Your task to perform on an android device: allow notifications from all sites in the chrome app Image 0: 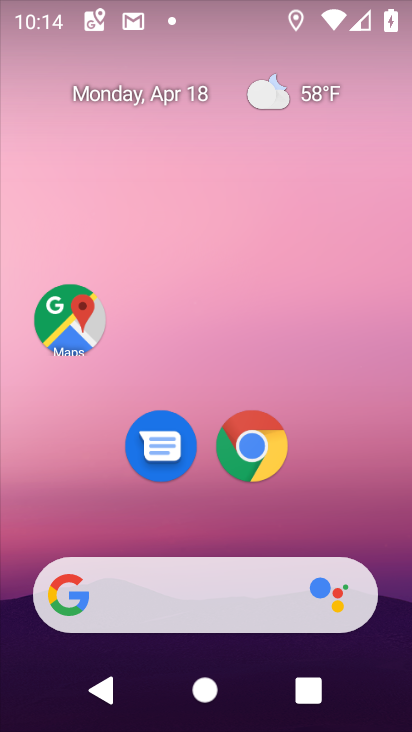
Step 0: drag from (375, 525) to (358, 140)
Your task to perform on an android device: allow notifications from all sites in the chrome app Image 1: 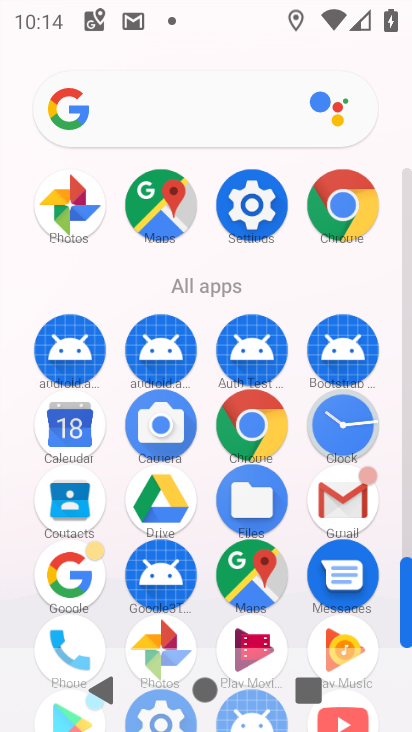
Step 1: click (271, 440)
Your task to perform on an android device: allow notifications from all sites in the chrome app Image 2: 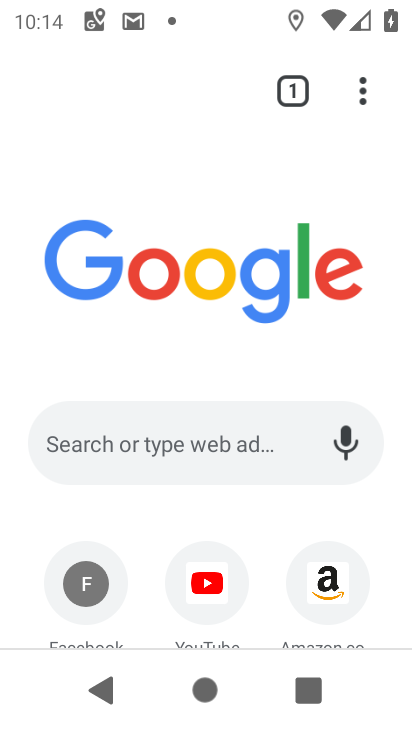
Step 2: click (362, 95)
Your task to perform on an android device: allow notifications from all sites in the chrome app Image 3: 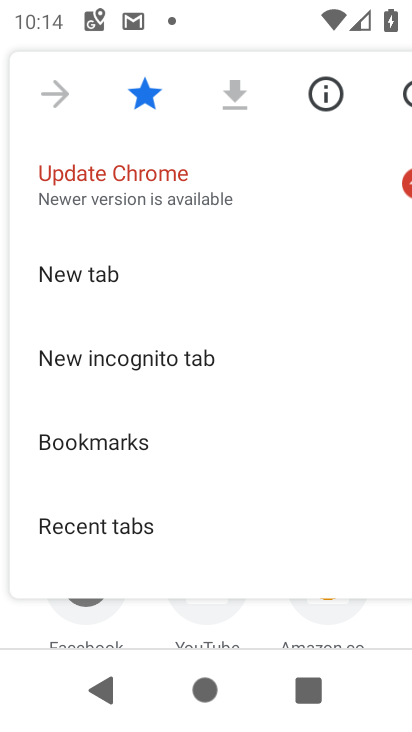
Step 3: drag from (324, 482) to (326, 256)
Your task to perform on an android device: allow notifications from all sites in the chrome app Image 4: 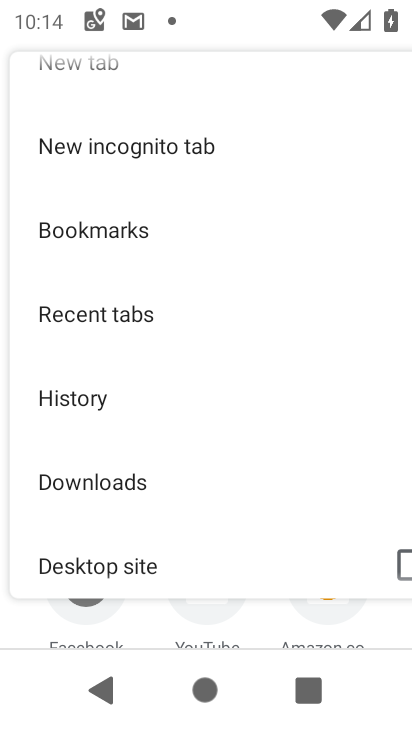
Step 4: drag from (304, 480) to (297, 288)
Your task to perform on an android device: allow notifications from all sites in the chrome app Image 5: 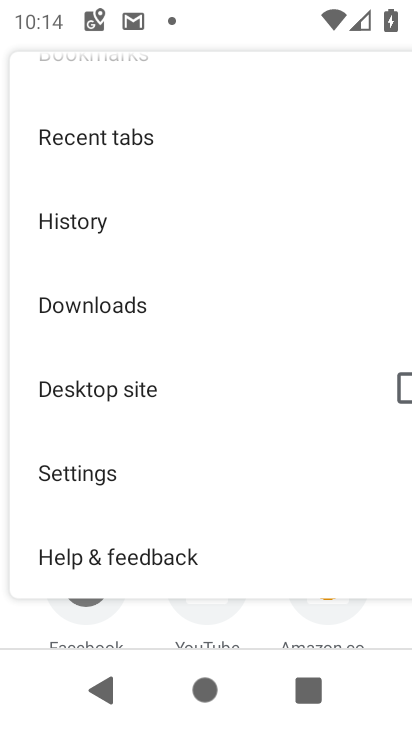
Step 5: drag from (293, 500) to (303, 314)
Your task to perform on an android device: allow notifications from all sites in the chrome app Image 6: 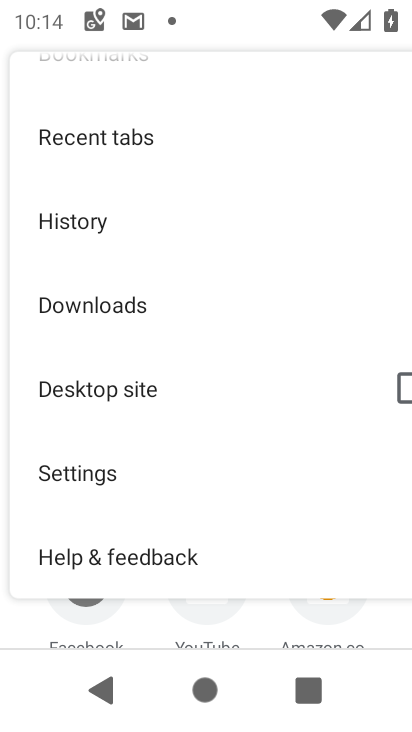
Step 6: click (124, 475)
Your task to perform on an android device: allow notifications from all sites in the chrome app Image 7: 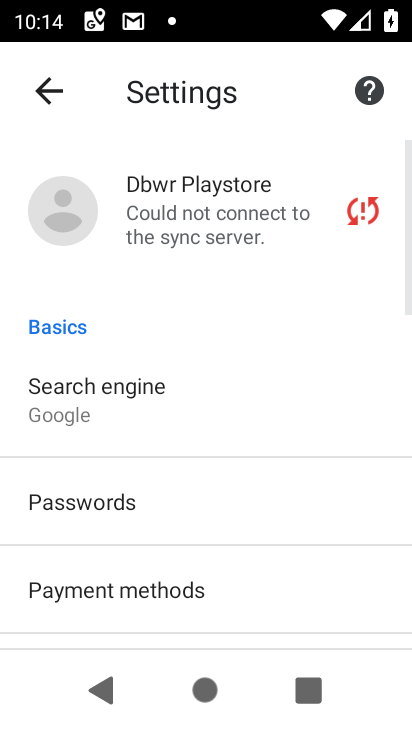
Step 7: drag from (288, 519) to (286, 339)
Your task to perform on an android device: allow notifications from all sites in the chrome app Image 8: 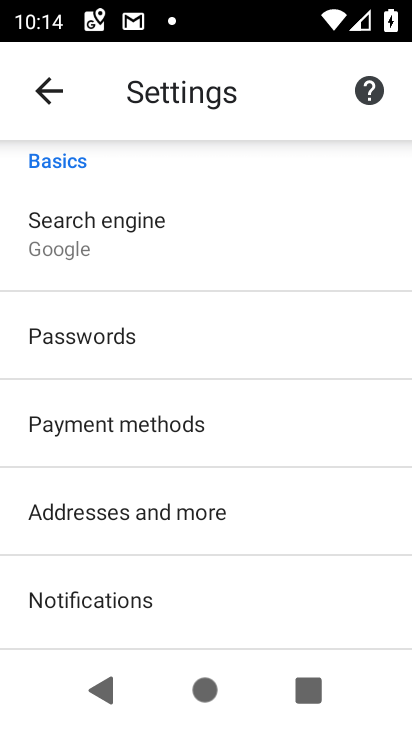
Step 8: drag from (289, 562) to (292, 385)
Your task to perform on an android device: allow notifications from all sites in the chrome app Image 9: 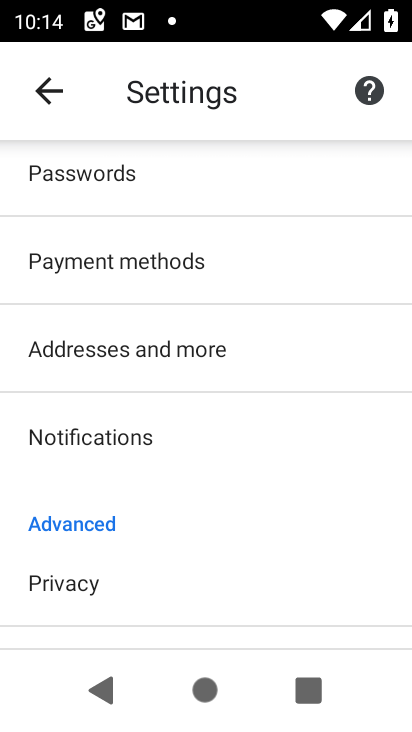
Step 9: drag from (299, 537) to (298, 306)
Your task to perform on an android device: allow notifications from all sites in the chrome app Image 10: 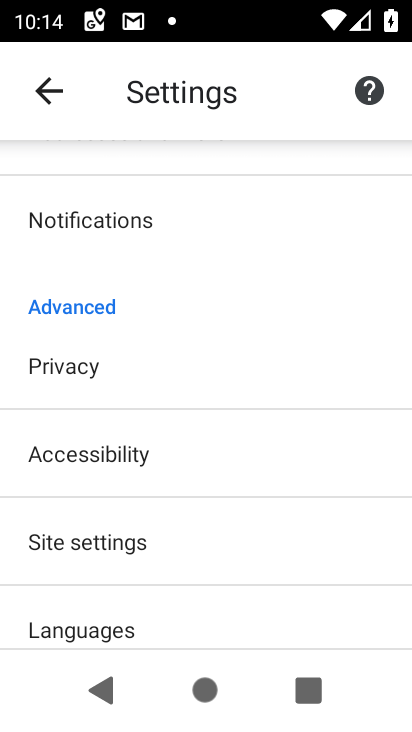
Step 10: drag from (270, 492) to (270, 342)
Your task to perform on an android device: allow notifications from all sites in the chrome app Image 11: 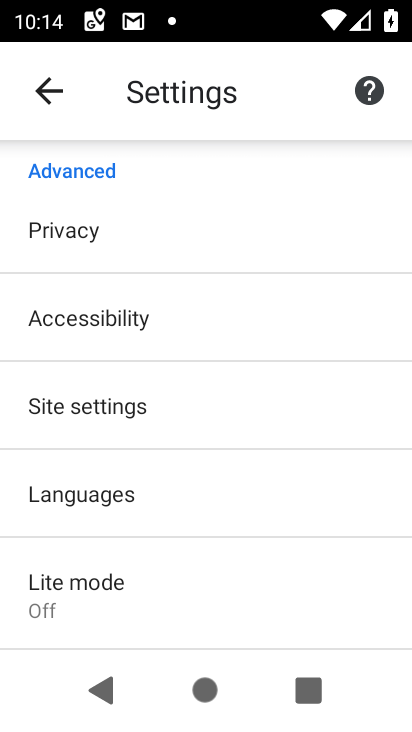
Step 11: click (201, 408)
Your task to perform on an android device: allow notifications from all sites in the chrome app Image 12: 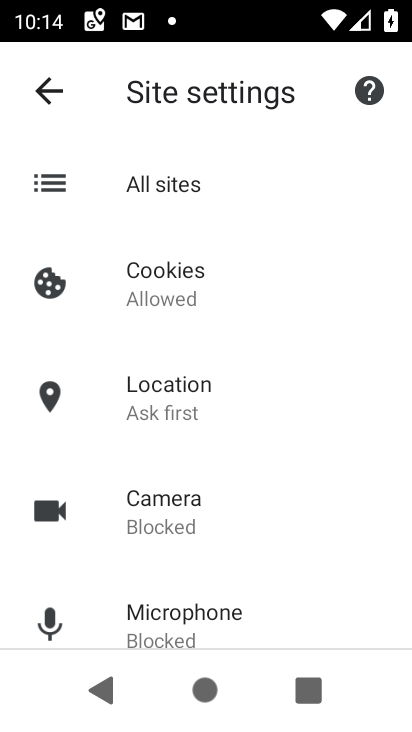
Step 12: drag from (337, 555) to (323, 323)
Your task to perform on an android device: allow notifications from all sites in the chrome app Image 13: 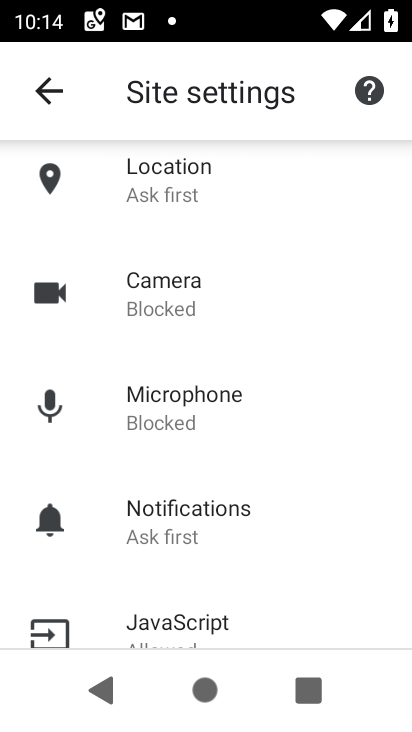
Step 13: drag from (334, 523) to (333, 339)
Your task to perform on an android device: allow notifications from all sites in the chrome app Image 14: 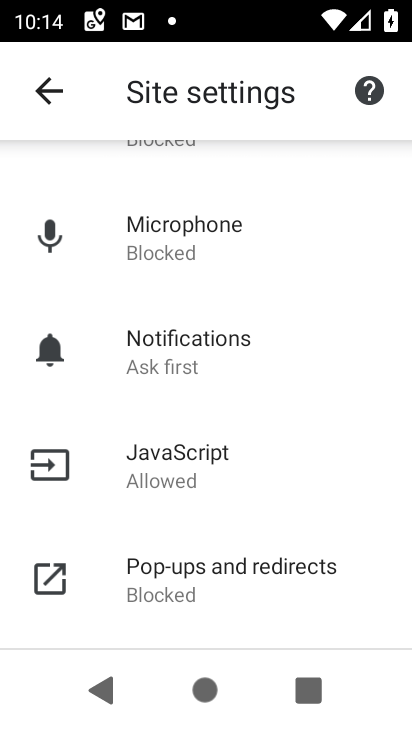
Step 14: click (178, 343)
Your task to perform on an android device: allow notifications from all sites in the chrome app Image 15: 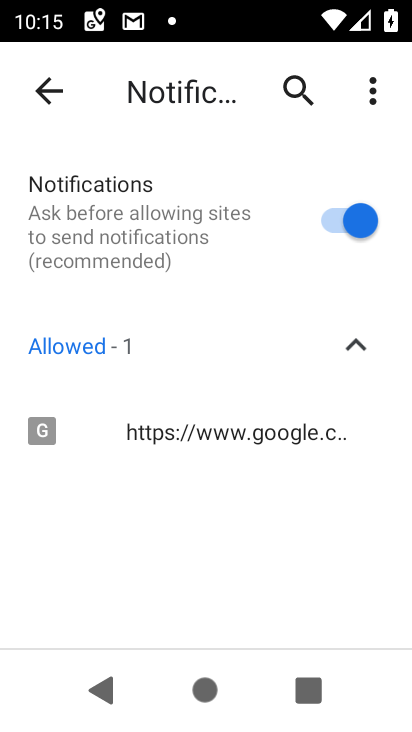
Step 15: task complete